Your task to perform on an android device: turn off airplane mode Image 0: 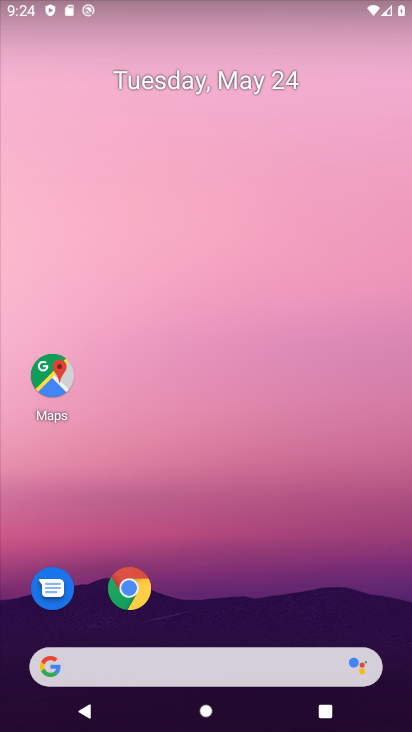
Step 0: drag from (373, 11) to (279, 480)
Your task to perform on an android device: turn off airplane mode Image 1: 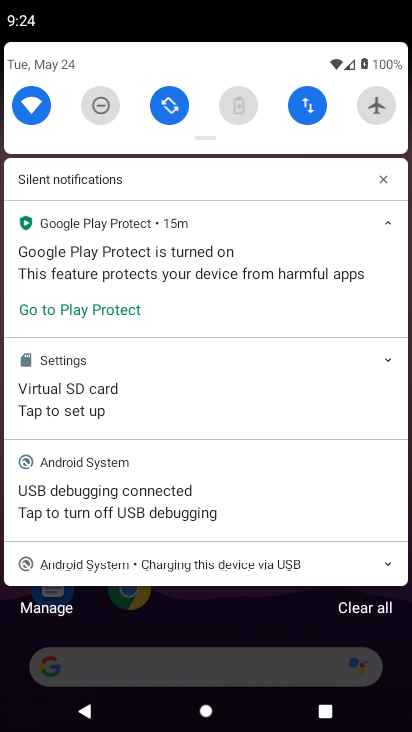
Step 1: task complete